Your task to perform on an android device: Search for Italian restaurants on Maps Image 0: 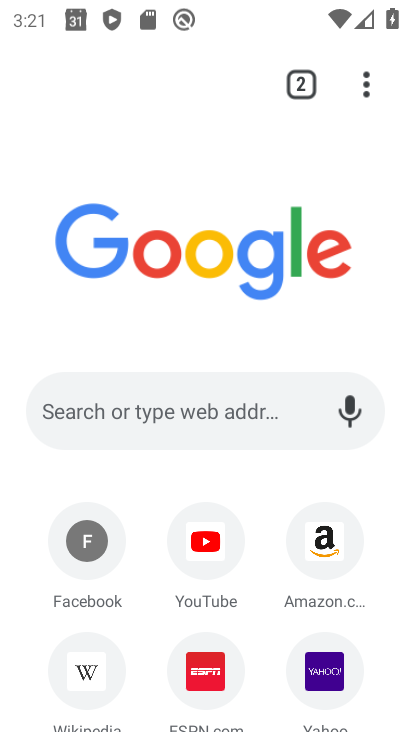
Step 0: press home button
Your task to perform on an android device: Search for Italian restaurants on Maps Image 1: 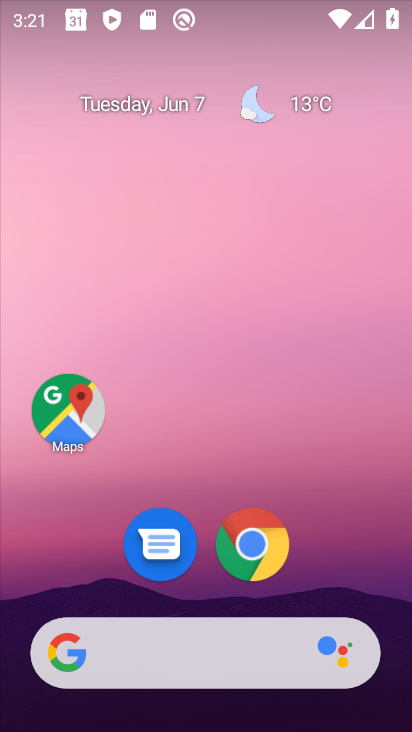
Step 1: click (64, 401)
Your task to perform on an android device: Search for Italian restaurants on Maps Image 2: 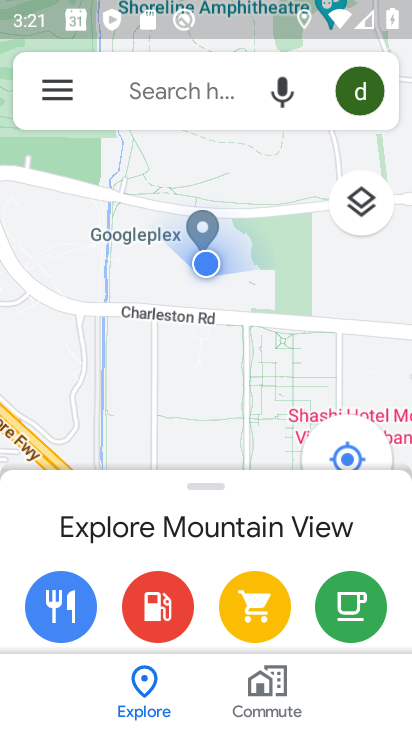
Step 2: click (165, 92)
Your task to perform on an android device: Search for Italian restaurants on Maps Image 3: 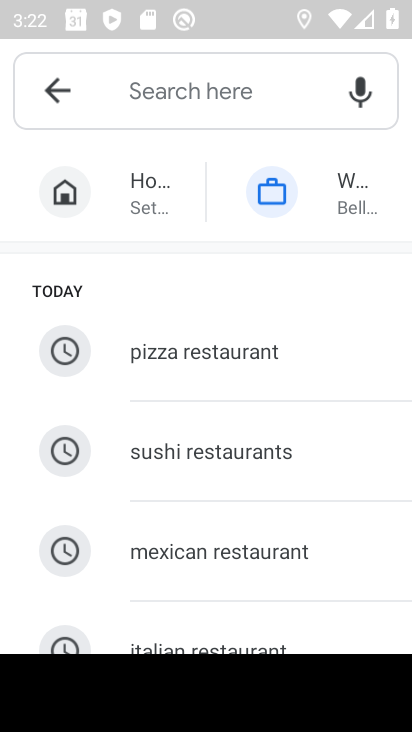
Step 3: click (210, 624)
Your task to perform on an android device: Search for Italian restaurants on Maps Image 4: 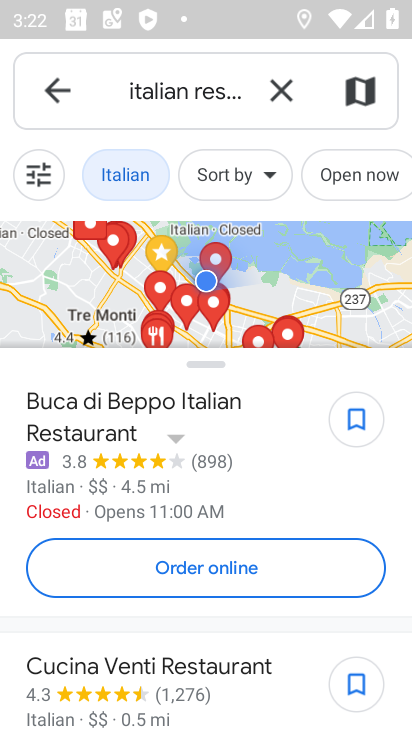
Step 4: drag from (242, 281) to (242, 166)
Your task to perform on an android device: Search for Italian restaurants on Maps Image 5: 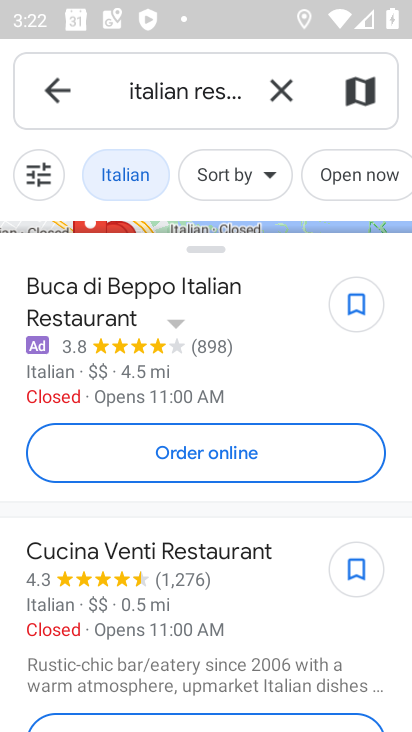
Step 5: click (240, 88)
Your task to perform on an android device: Search for Italian restaurants on Maps Image 6: 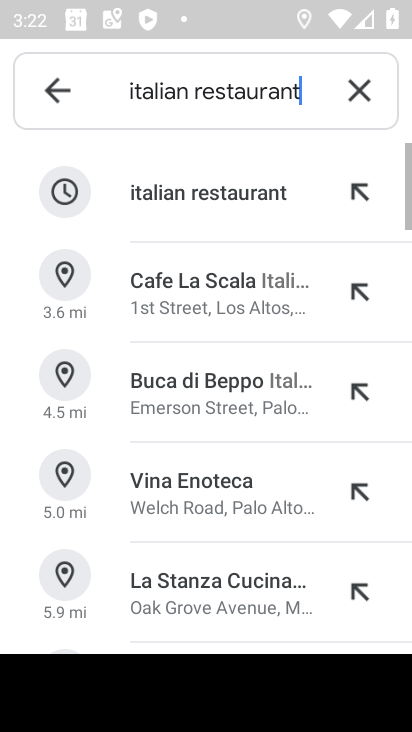
Step 6: drag from (236, 632) to (241, 163)
Your task to perform on an android device: Search for Italian restaurants on Maps Image 7: 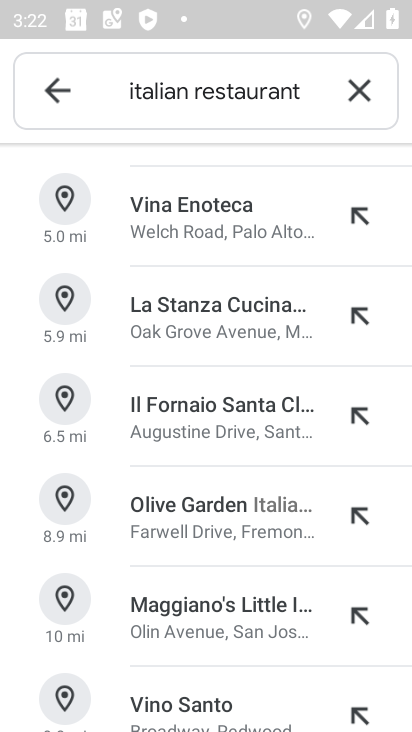
Step 7: drag from (203, 192) to (198, 727)
Your task to perform on an android device: Search for Italian restaurants on Maps Image 8: 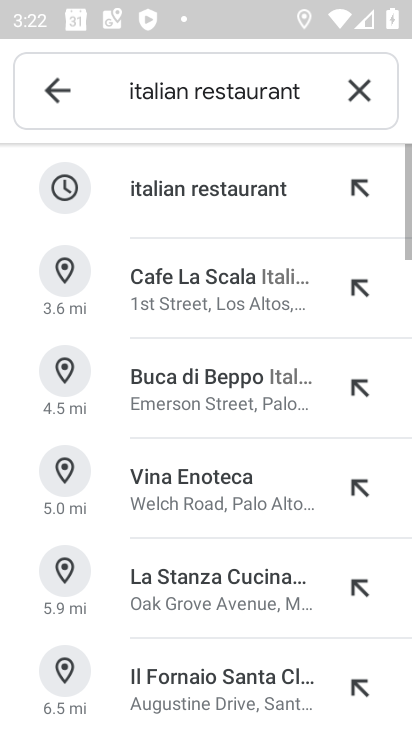
Step 8: click (192, 198)
Your task to perform on an android device: Search for Italian restaurants on Maps Image 9: 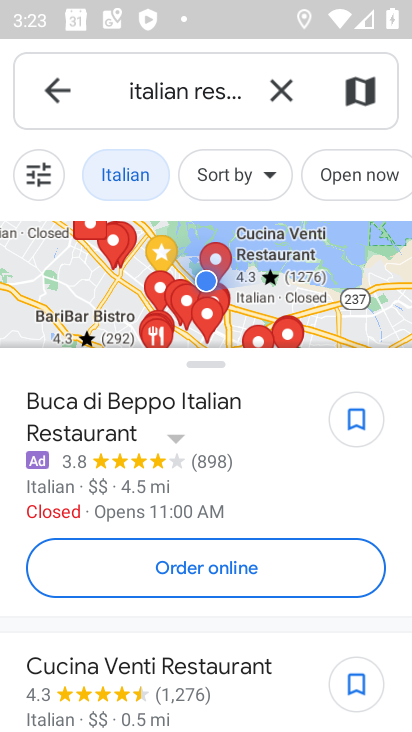
Step 9: task complete